Your task to perform on an android device: install app "NewsBreak: Local News & Alerts" Image 0: 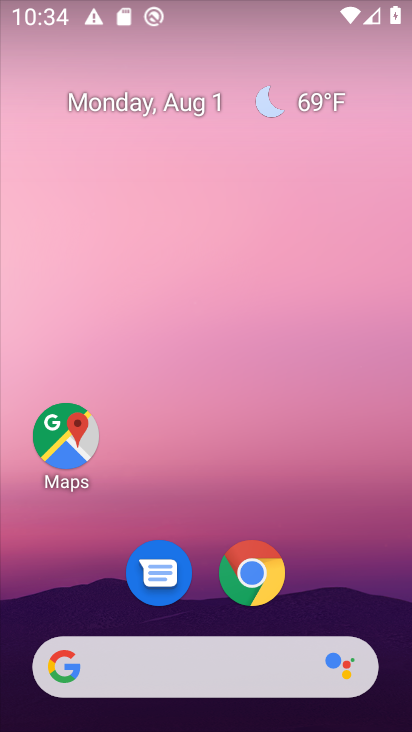
Step 0: press home button
Your task to perform on an android device: install app "NewsBreak: Local News & Alerts" Image 1: 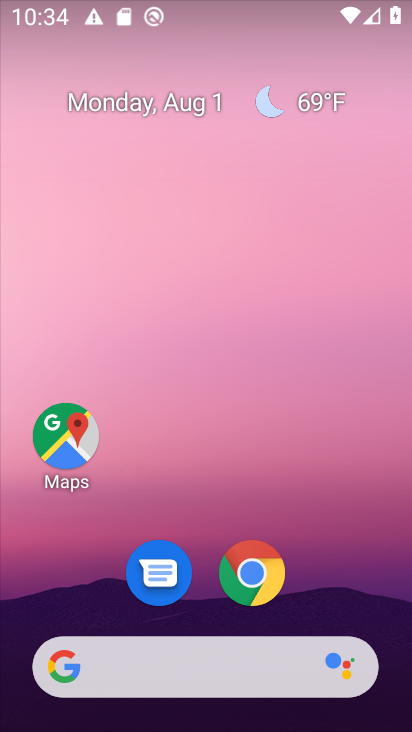
Step 1: drag from (331, 602) to (351, 108)
Your task to perform on an android device: install app "NewsBreak: Local News & Alerts" Image 2: 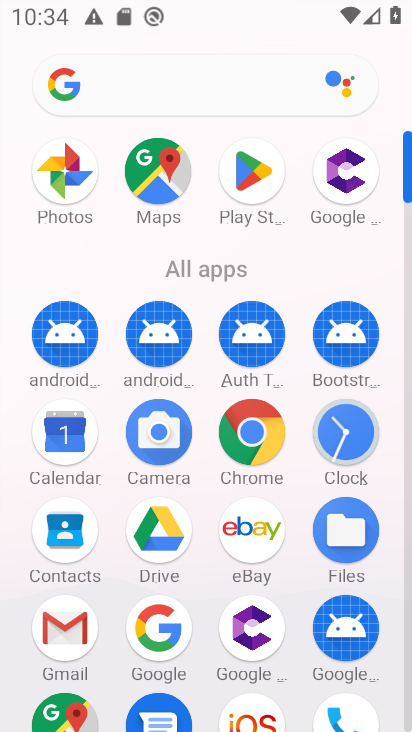
Step 2: click (253, 184)
Your task to perform on an android device: install app "NewsBreak: Local News & Alerts" Image 3: 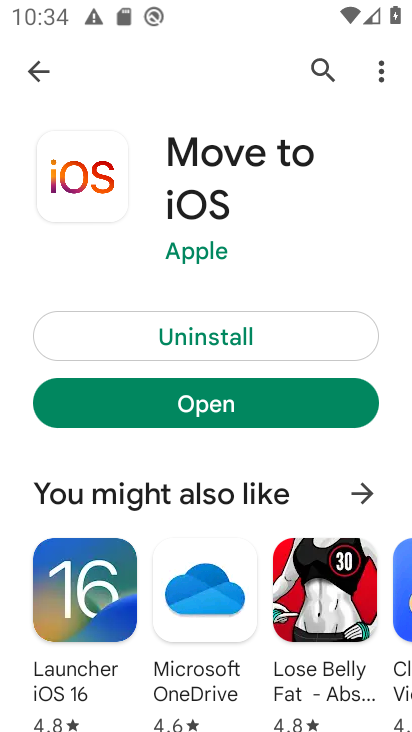
Step 3: click (326, 73)
Your task to perform on an android device: install app "NewsBreak: Local News & Alerts" Image 4: 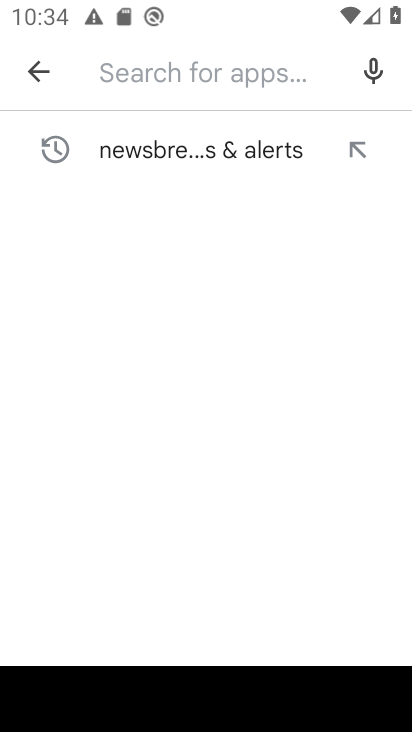
Step 4: click (257, 75)
Your task to perform on an android device: install app "NewsBreak: Local News & Alerts" Image 5: 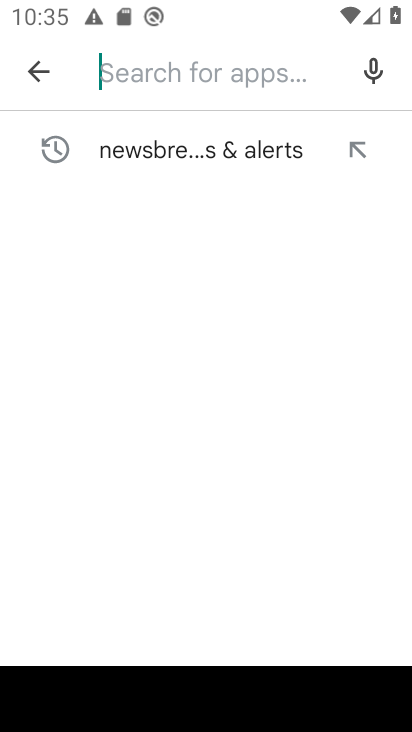
Step 5: type "NewsBreak: Local News & Alerts"
Your task to perform on an android device: install app "NewsBreak: Local News & Alerts" Image 6: 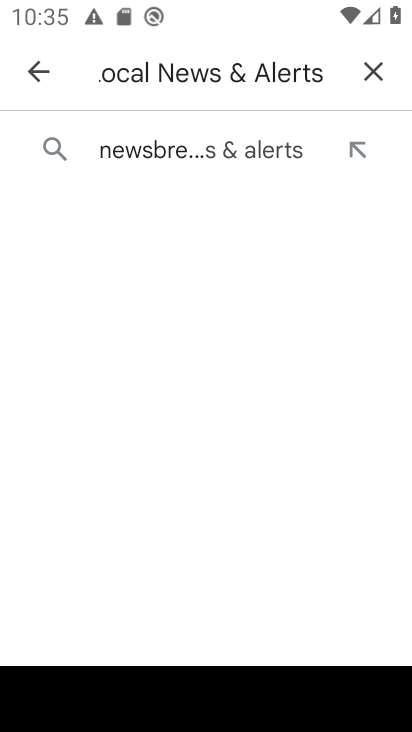
Step 6: click (238, 149)
Your task to perform on an android device: install app "NewsBreak: Local News & Alerts" Image 7: 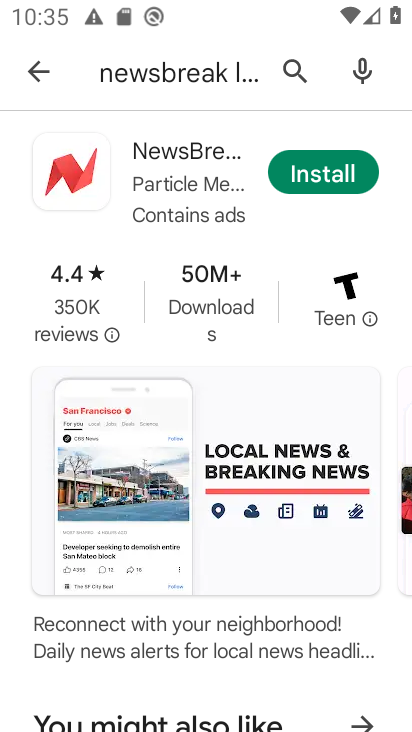
Step 7: click (321, 163)
Your task to perform on an android device: install app "NewsBreak: Local News & Alerts" Image 8: 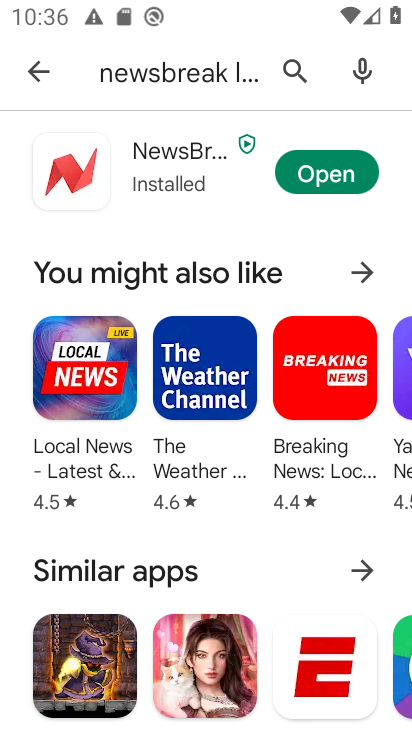
Step 8: task complete